Your task to perform on an android device: show emergency info Image 0: 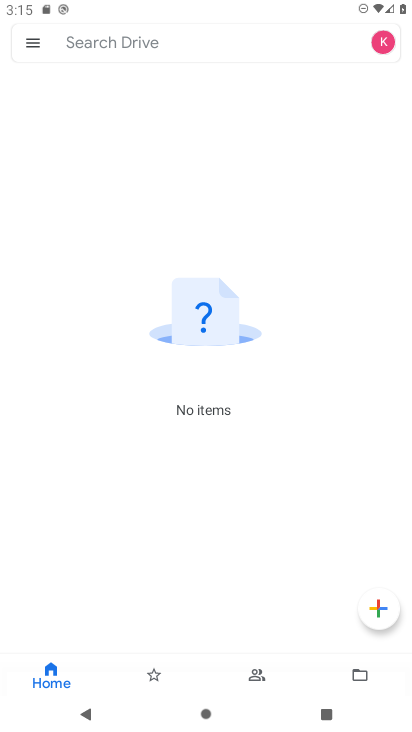
Step 0: press home button
Your task to perform on an android device: show emergency info Image 1: 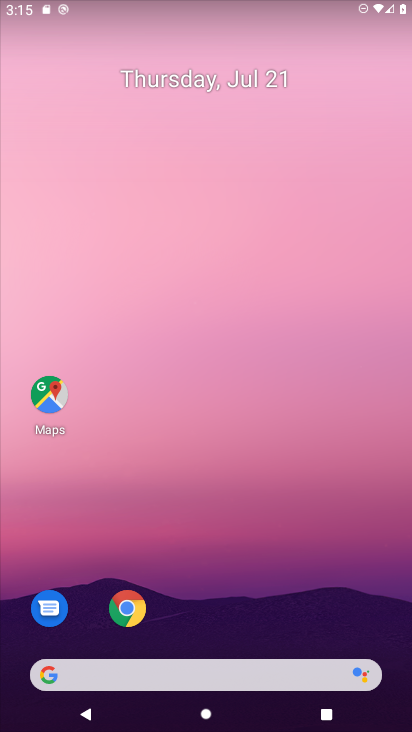
Step 1: drag from (180, 452) to (178, 184)
Your task to perform on an android device: show emergency info Image 2: 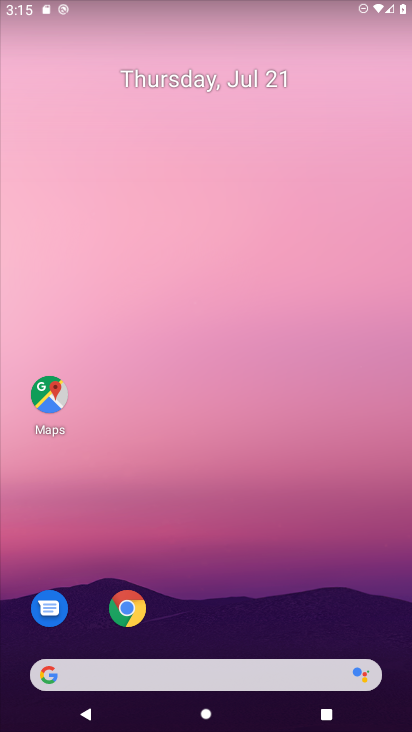
Step 2: drag from (227, 609) to (213, 150)
Your task to perform on an android device: show emergency info Image 3: 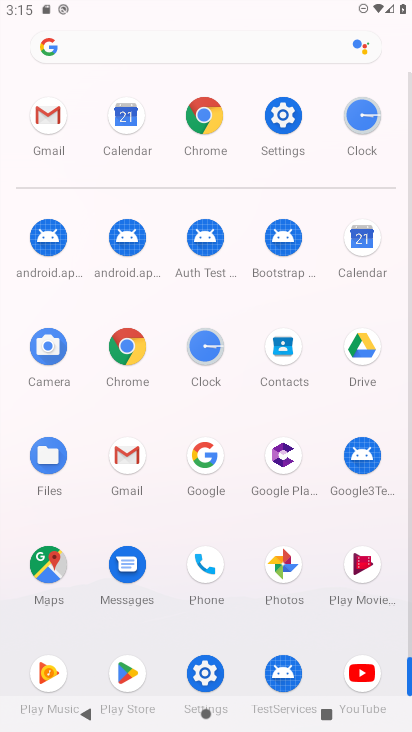
Step 3: click (269, 135)
Your task to perform on an android device: show emergency info Image 4: 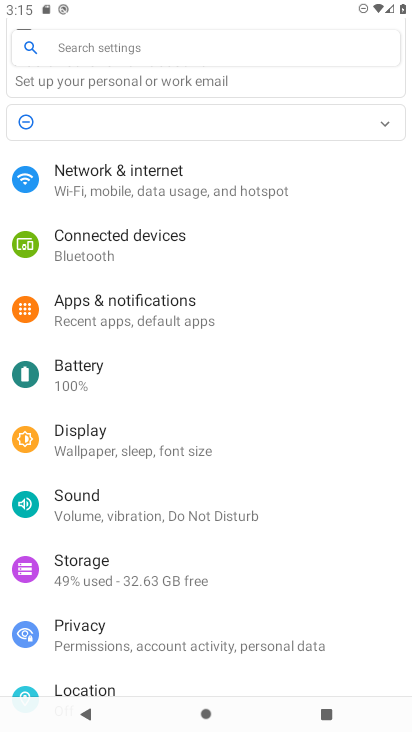
Step 4: drag from (232, 642) to (195, 186)
Your task to perform on an android device: show emergency info Image 5: 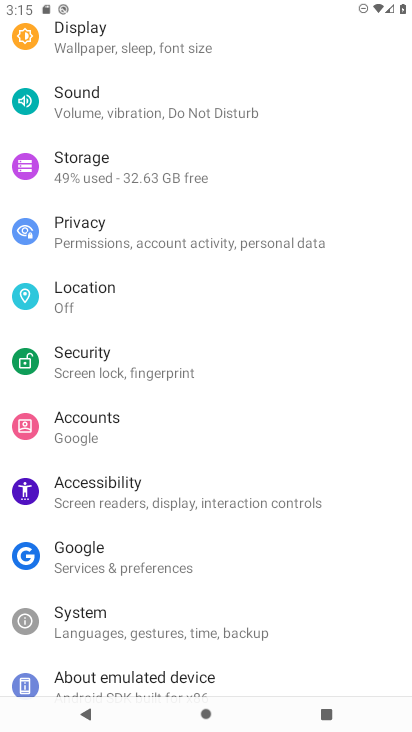
Step 5: drag from (186, 602) to (133, 214)
Your task to perform on an android device: show emergency info Image 6: 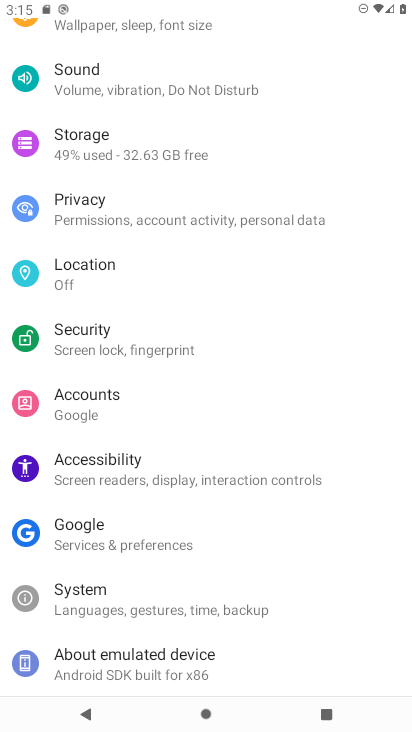
Step 6: click (99, 645)
Your task to perform on an android device: show emergency info Image 7: 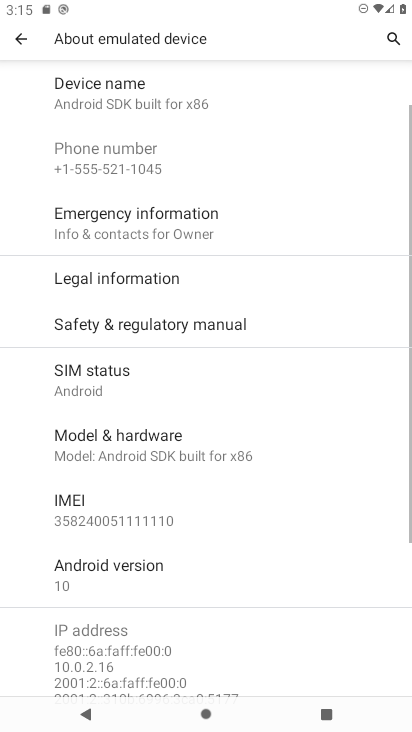
Step 7: click (78, 236)
Your task to perform on an android device: show emergency info Image 8: 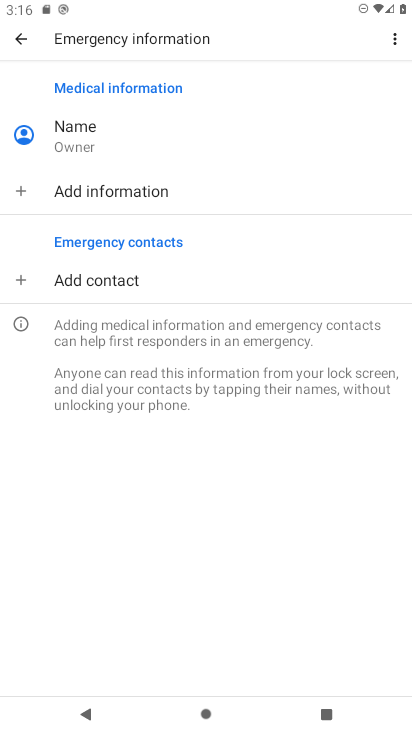
Step 8: task complete